Your task to perform on an android device: delete browsing data in the chrome app Image 0: 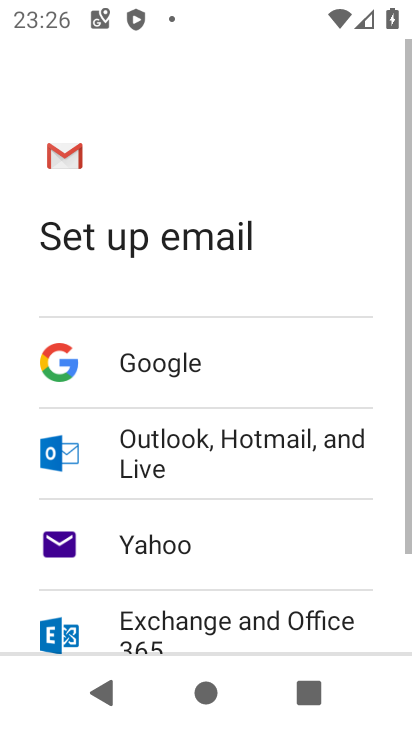
Step 0: press home button
Your task to perform on an android device: delete browsing data in the chrome app Image 1: 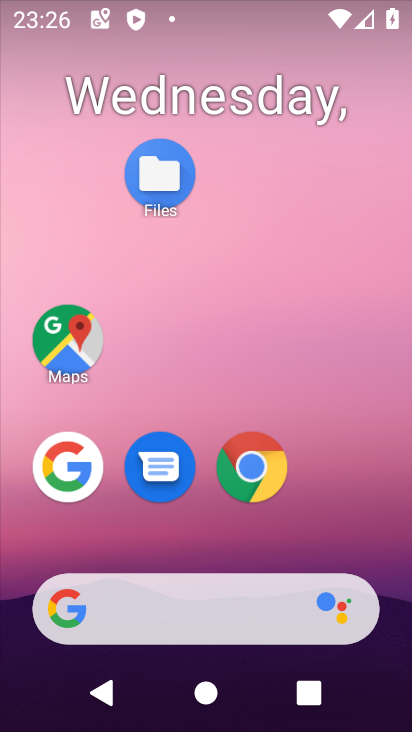
Step 1: click (255, 456)
Your task to perform on an android device: delete browsing data in the chrome app Image 2: 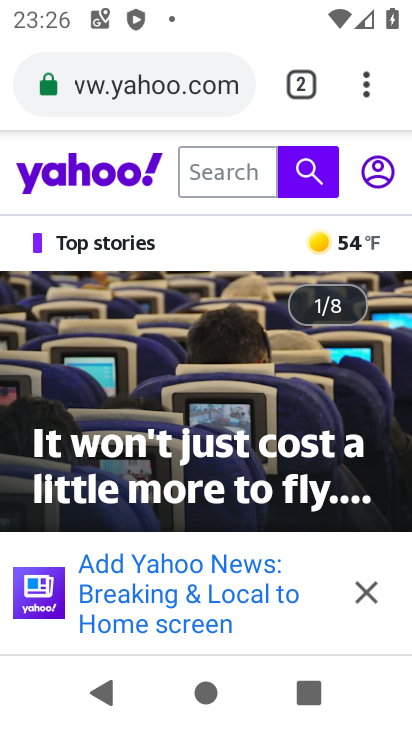
Step 2: click (358, 83)
Your task to perform on an android device: delete browsing data in the chrome app Image 3: 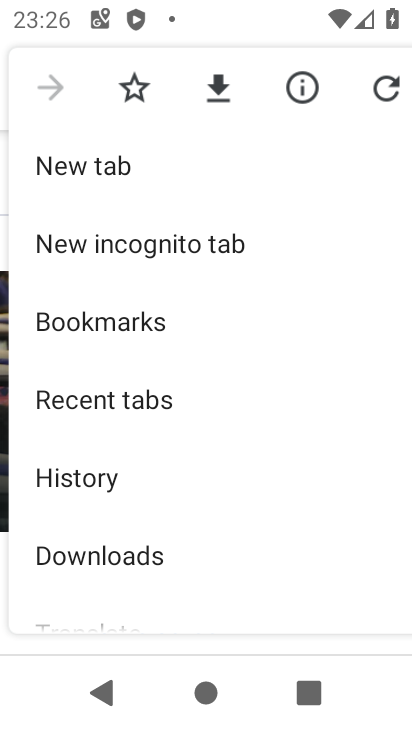
Step 3: click (126, 310)
Your task to perform on an android device: delete browsing data in the chrome app Image 4: 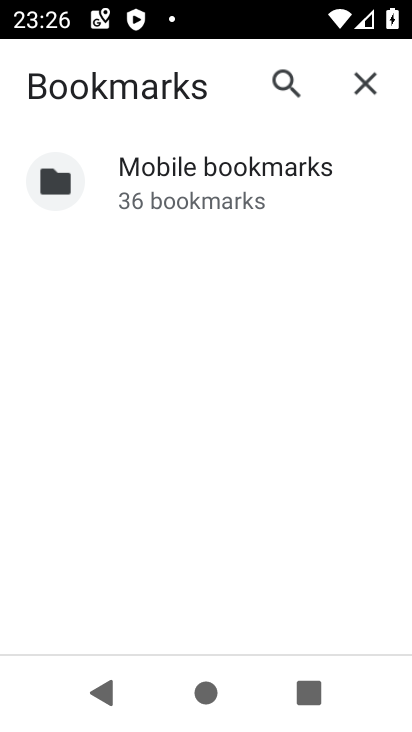
Step 4: click (363, 80)
Your task to perform on an android device: delete browsing data in the chrome app Image 5: 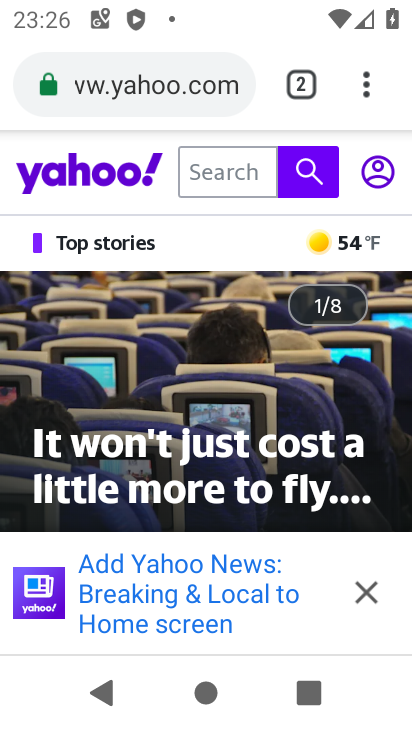
Step 5: click (363, 80)
Your task to perform on an android device: delete browsing data in the chrome app Image 6: 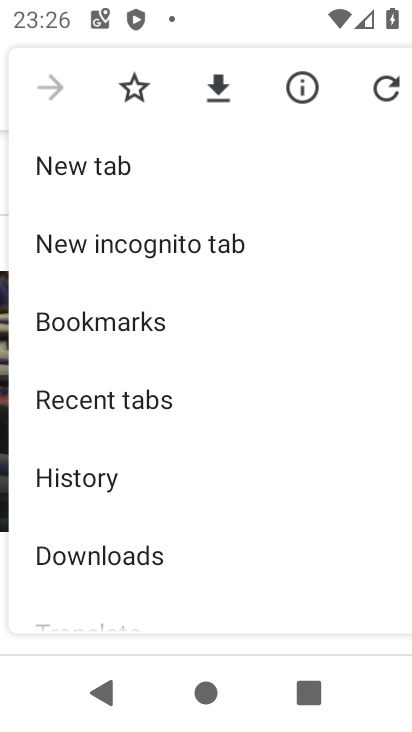
Step 6: click (77, 485)
Your task to perform on an android device: delete browsing data in the chrome app Image 7: 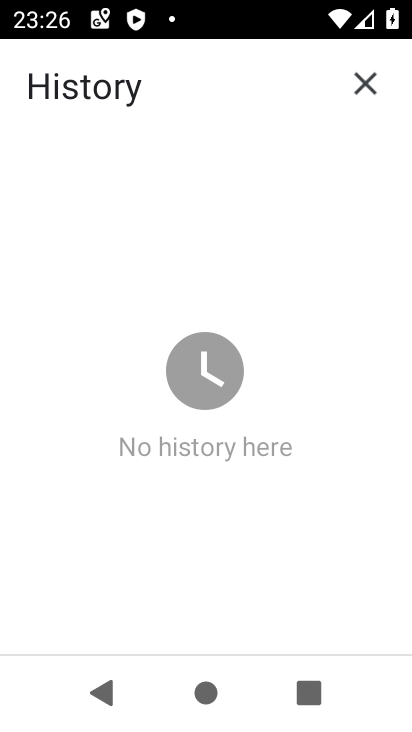
Step 7: task complete